Your task to perform on an android device: delete the emails in spam in the gmail app Image 0: 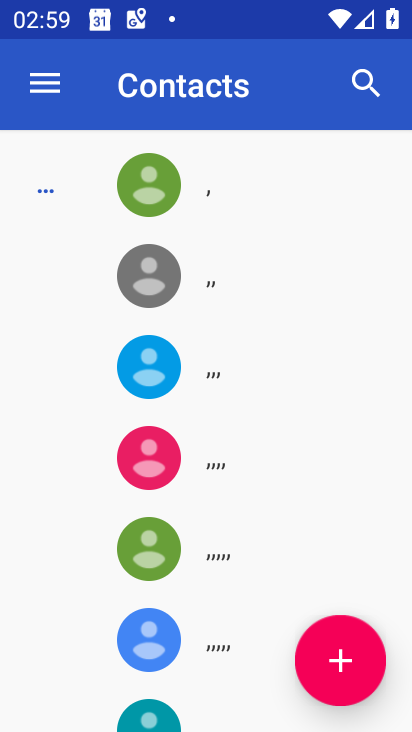
Step 0: press home button
Your task to perform on an android device: delete the emails in spam in the gmail app Image 1: 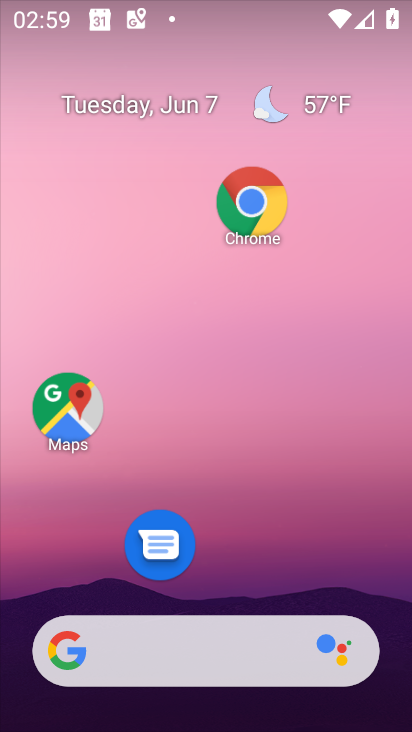
Step 1: drag from (272, 549) to (308, 208)
Your task to perform on an android device: delete the emails in spam in the gmail app Image 2: 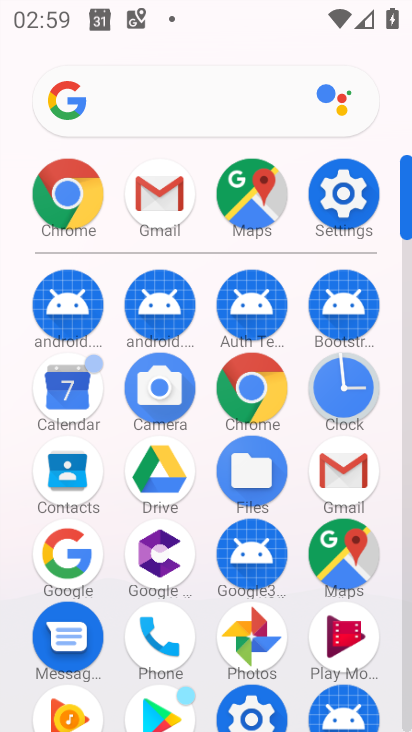
Step 2: click (343, 451)
Your task to perform on an android device: delete the emails in spam in the gmail app Image 3: 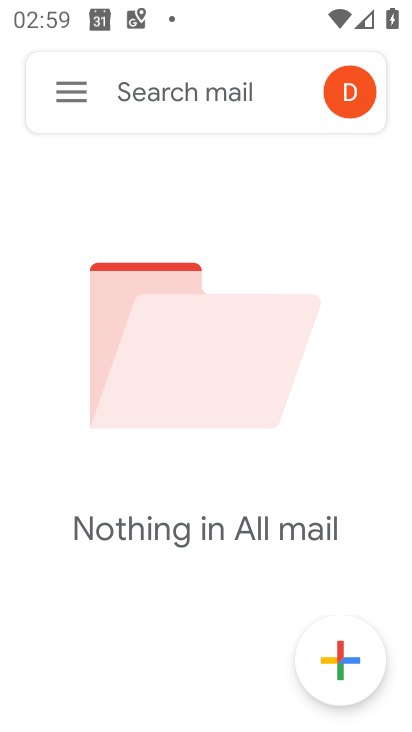
Step 3: click (68, 91)
Your task to perform on an android device: delete the emails in spam in the gmail app Image 4: 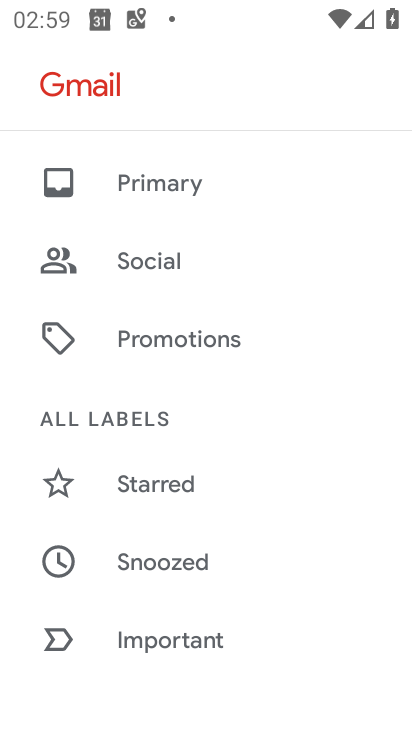
Step 4: drag from (152, 657) to (181, 262)
Your task to perform on an android device: delete the emails in spam in the gmail app Image 5: 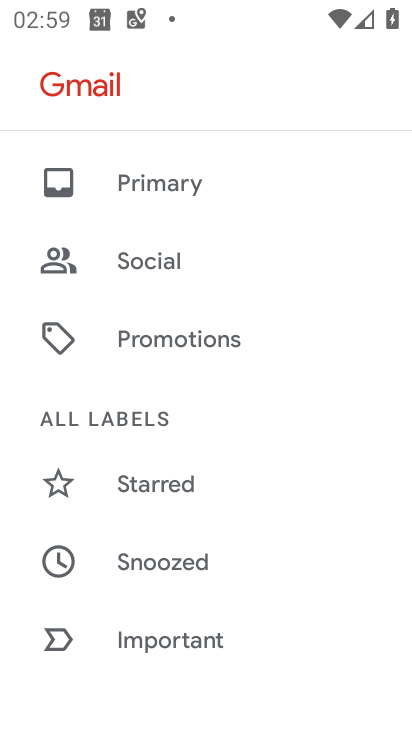
Step 5: drag from (169, 649) to (143, 169)
Your task to perform on an android device: delete the emails in spam in the gmail app Image 6: 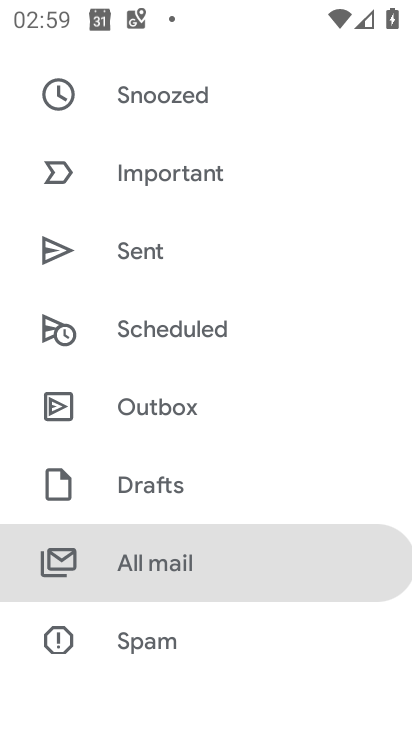
Step 6: click (152, 638)
Your task to perform on an android device: delete the emails in spam in the gmail app Image 7: 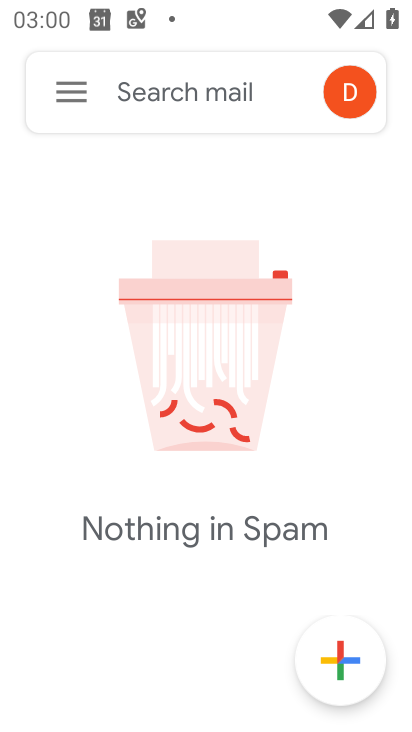
Step 7: task complete